Your task to perform on an android device: Open calendar and show me the second week of next month Image 0: 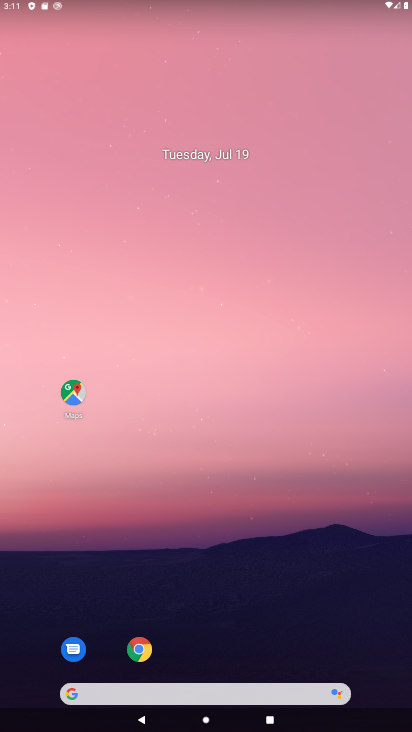
Step 0: click (210, 165)
Your task to perform on an android device: Open calendar and show me the second week of next month Image 1: 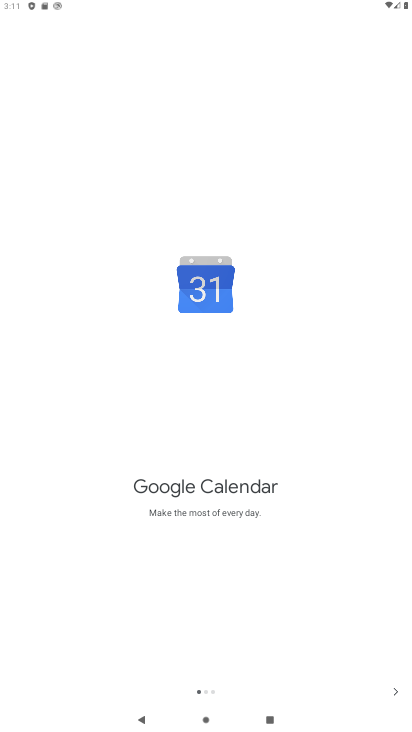
Step 1: click (400, 689)
Your task to perform on an android device: Open calendar and show me the second week of next month Image 2: 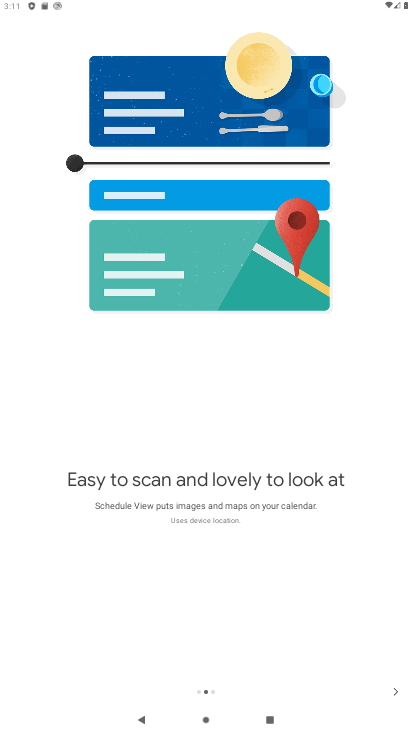
Step 2: click (400, 689)
Your task to perform on an android device: Open calendar and show me the second week of next month Image 3: 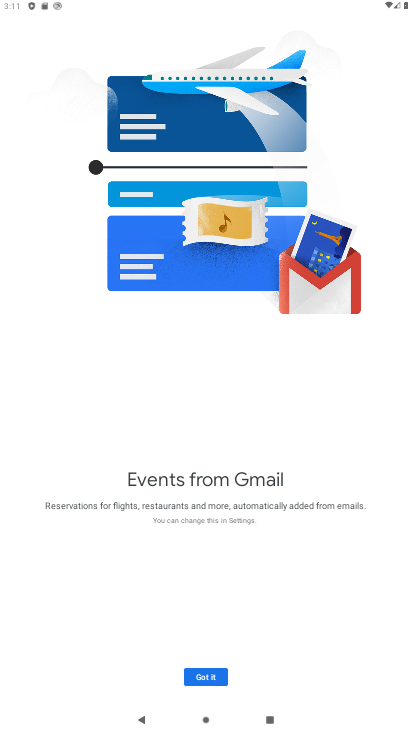
Step 3: click (223, 671)
Your task to perform on an android device: Open calendar and show me the second week of next month Image 4: 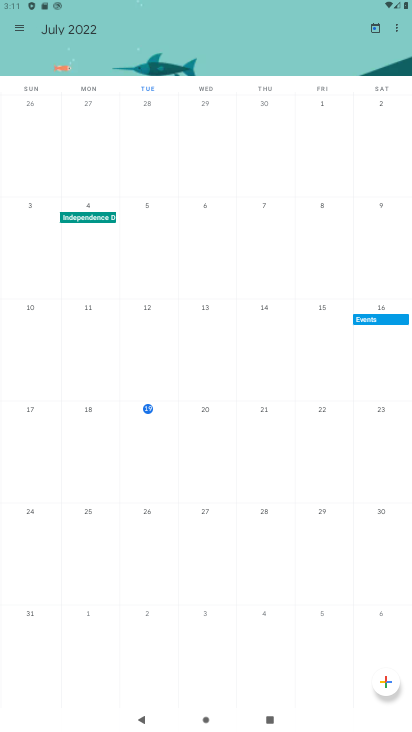
Step 4: click (99, 28)
Your task to perform on an android device: Open calendar and show me the second week of next month Image 5: 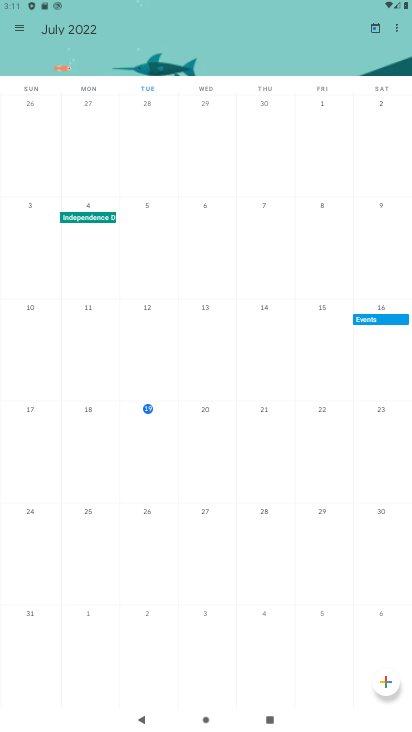
Step 5: click (31, 26)
Your task to perform on an android device: Open calendar and show me the second week of next month Image 6: 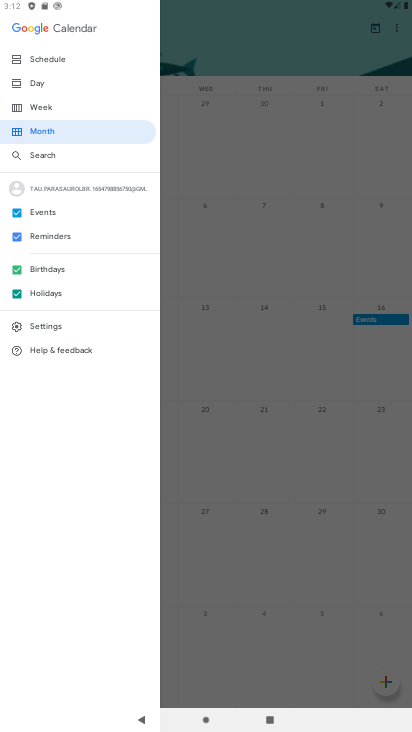
Step 6: click (58, 109)
Your task to perform on an android device: Open calendar and show me the second week of next month Image 7: 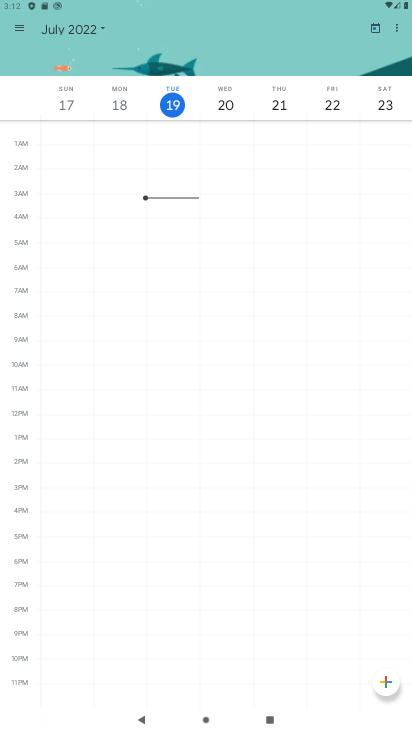
Step 7: click (102, 36)
Your task to perform on an android device: Open calendar and show me the second week of next month Image 8: 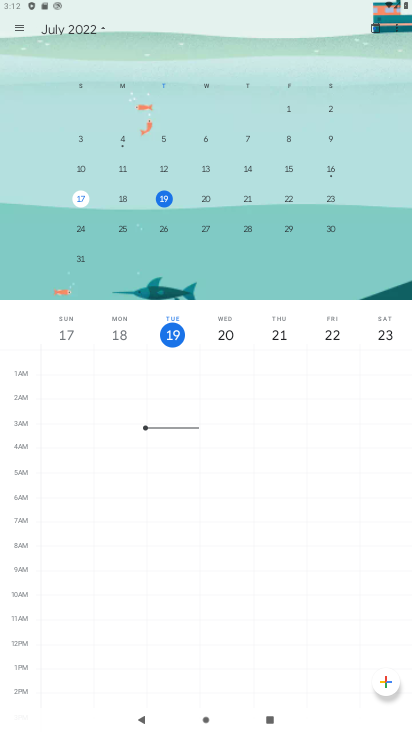
Step 8: drag from (352, 255) to (12, 293)
Your task to perform on an android device: Open calendar and show me the second week of next month Image 9: 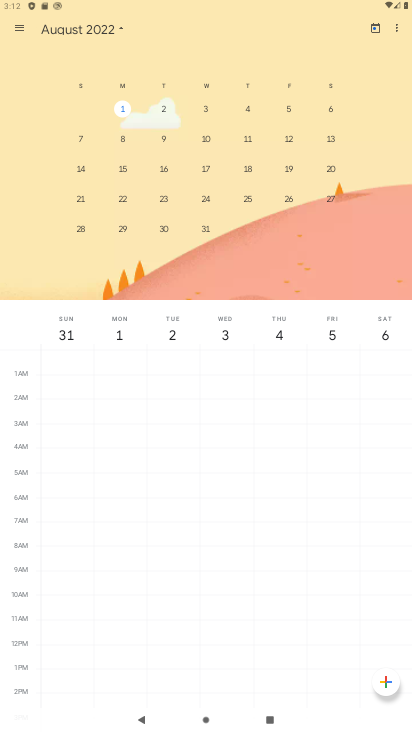
Step 9: click (124, 140)
Your task to perform on an android device: Open calendar and show me the second week of next month Image 10: 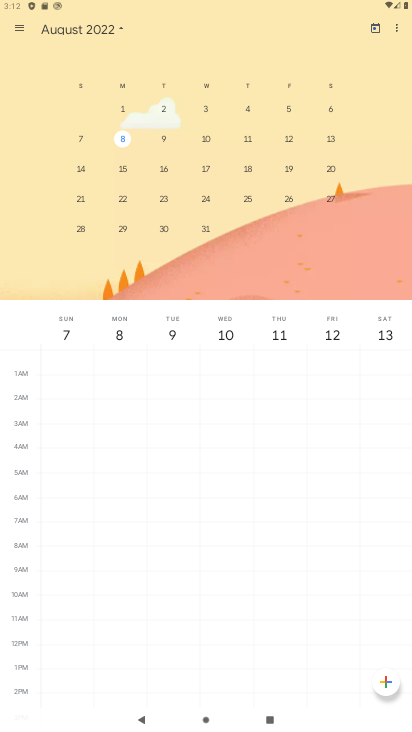
Step 10: task complete